Your task to perform on an android device: Open display settings Image 0: 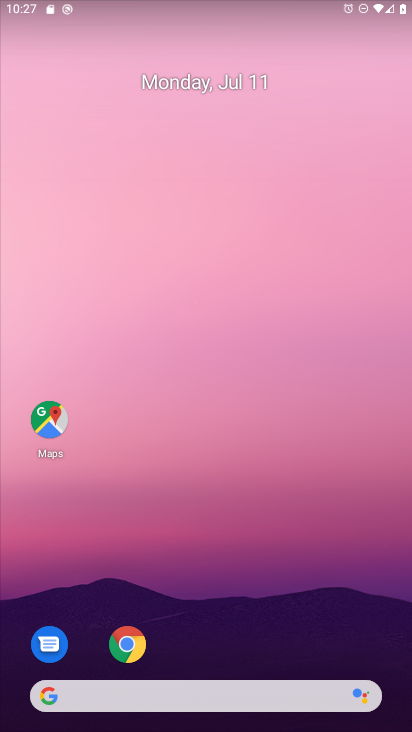
Step 0: drag from (172, 469) to (153, 306)
Your task to perform on an android device: Open display settings Image 1: 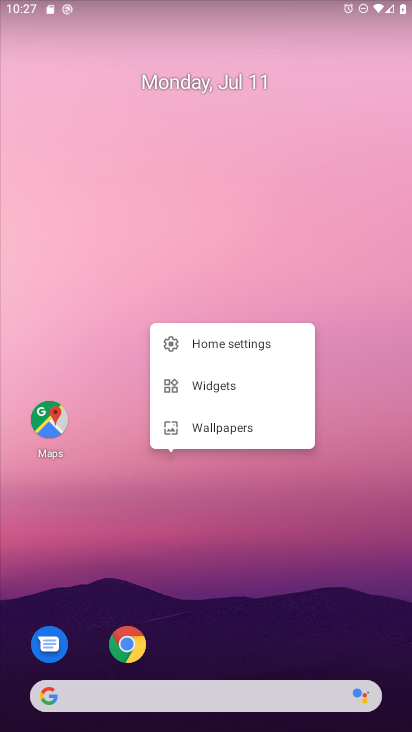
Step 1: click (99, 535)
Your task to perform on an android device: Open display settings Image 2: 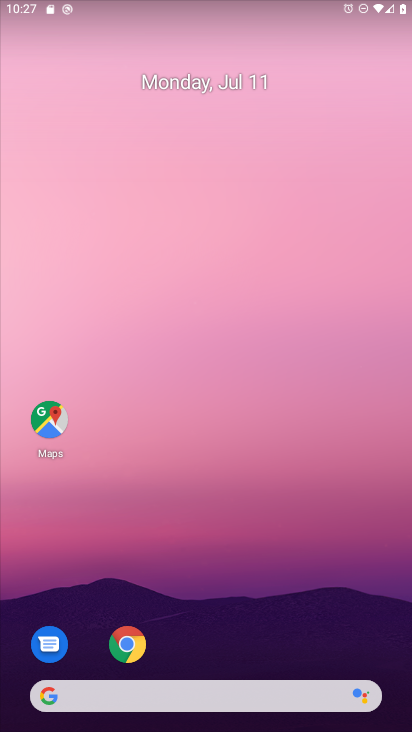
Step 2: click (154, 539)
Your task to perform on an android device: Open display settings Image 3: 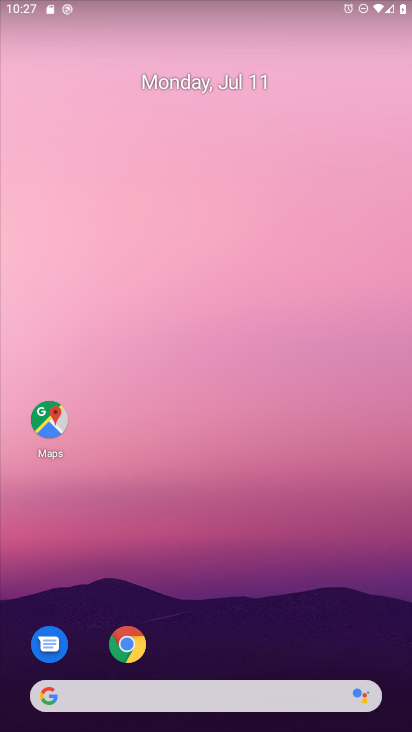
Step 3: drag from (196, 675) to (143, 291)
Your task to perform on an android device: Open display settings Image 4: 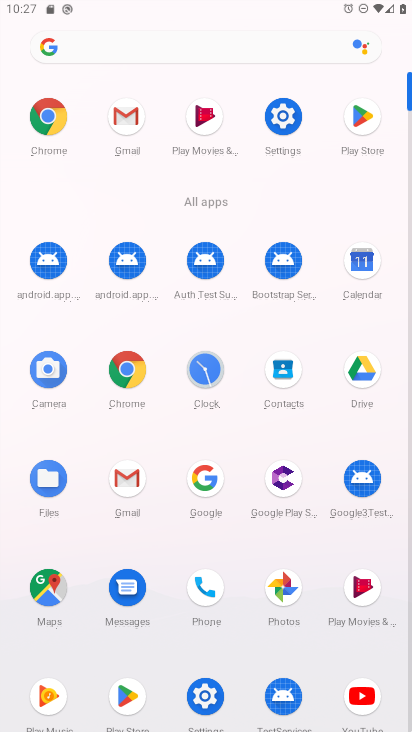
Step 4: click (285, 124)
Your task to perform on an android device: Open display settings Image 5: 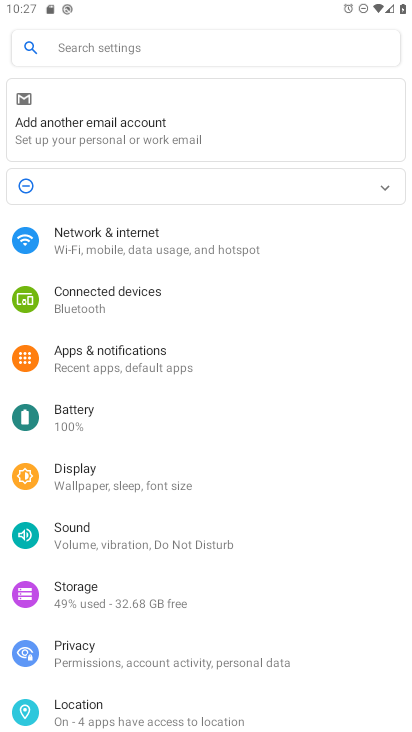
Step 5: click (89, 483)
Your task to perform on an android device: Open display settings Image 6: 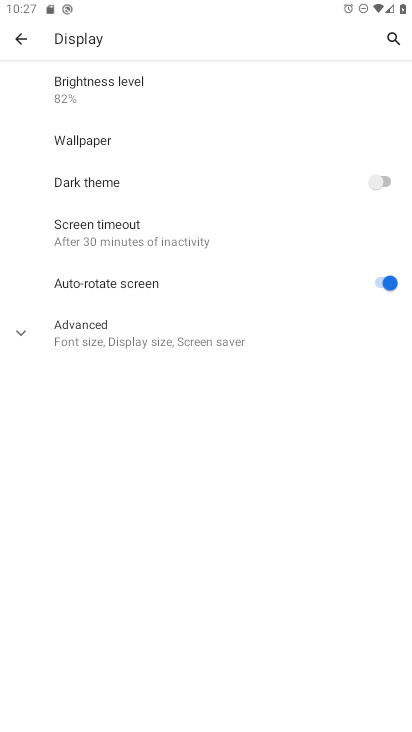
Step 6: click (63, 332)
Your task to perform on an android device: Open display settings Image 7: 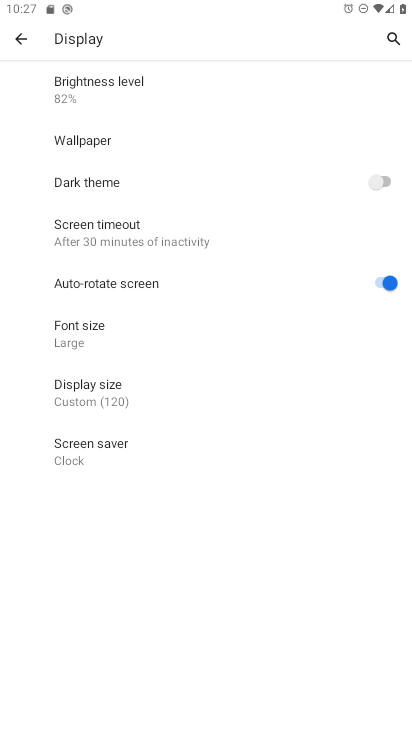
Step 7: task complete